Your task to perform on an android device: find snoozed emails in the gmail app Image 0: 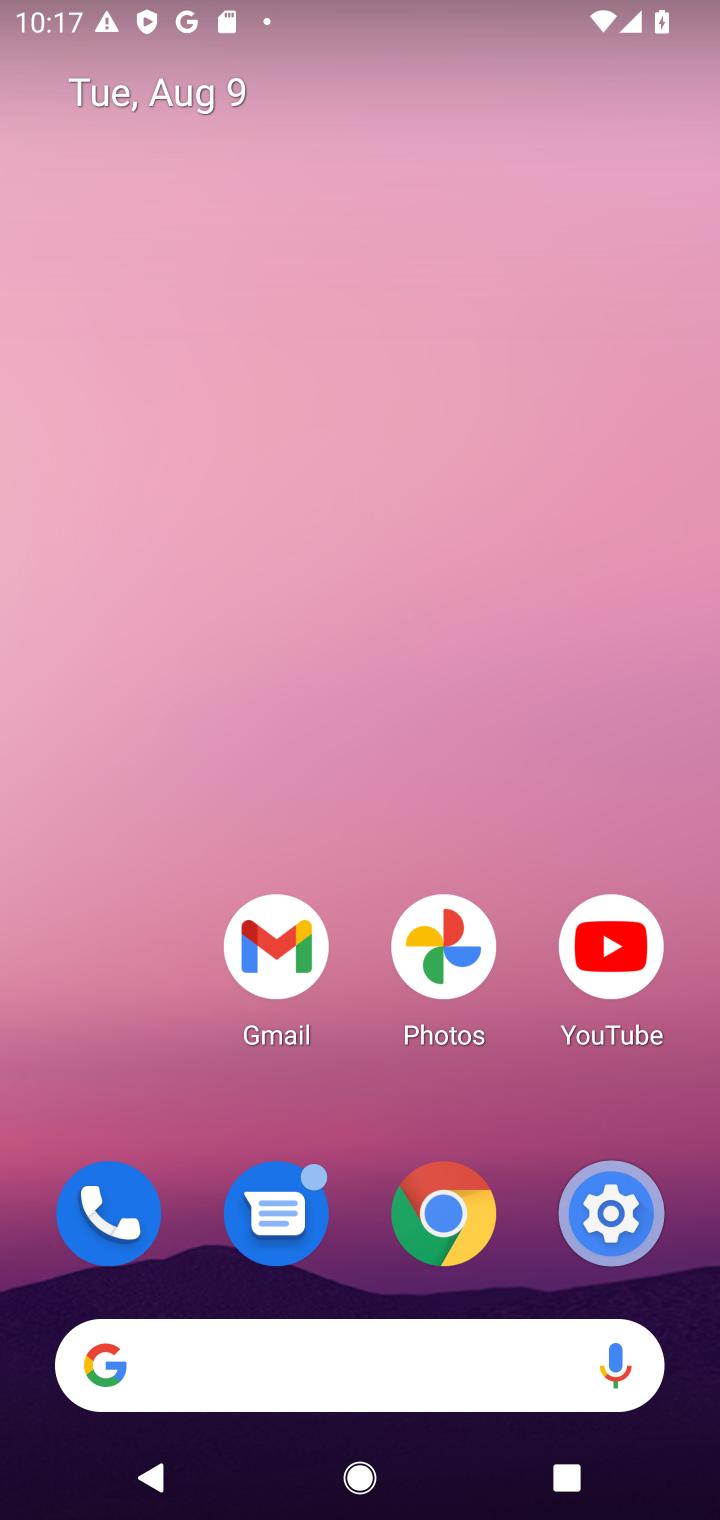
Step 0: drag from (403, 1290) to (363, 239)
Your task to perform on an android device: find snoozed emails in the gmail app Image 1: 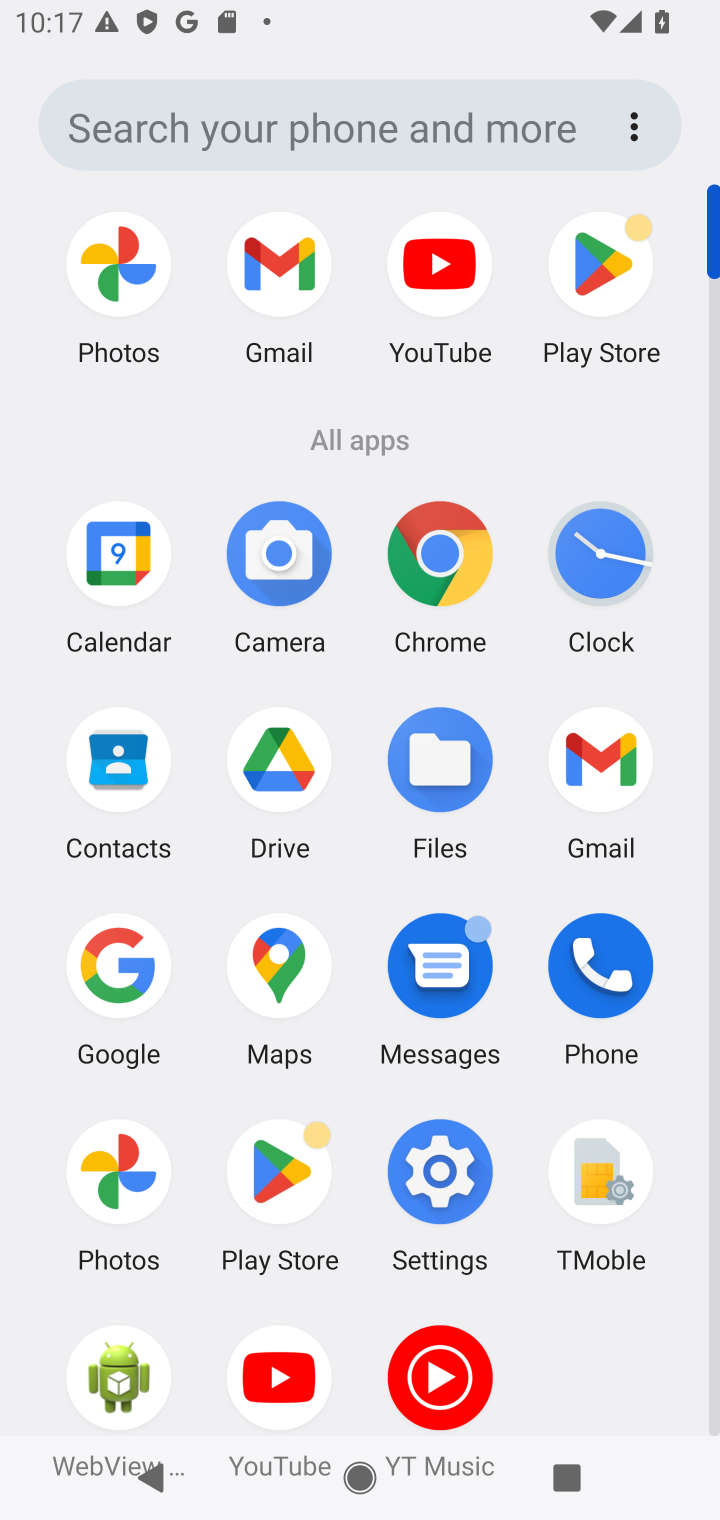
Step 1: click (559, 802)
Your task to perform on an android device: find snoozed emails in the gmail app Image 2: 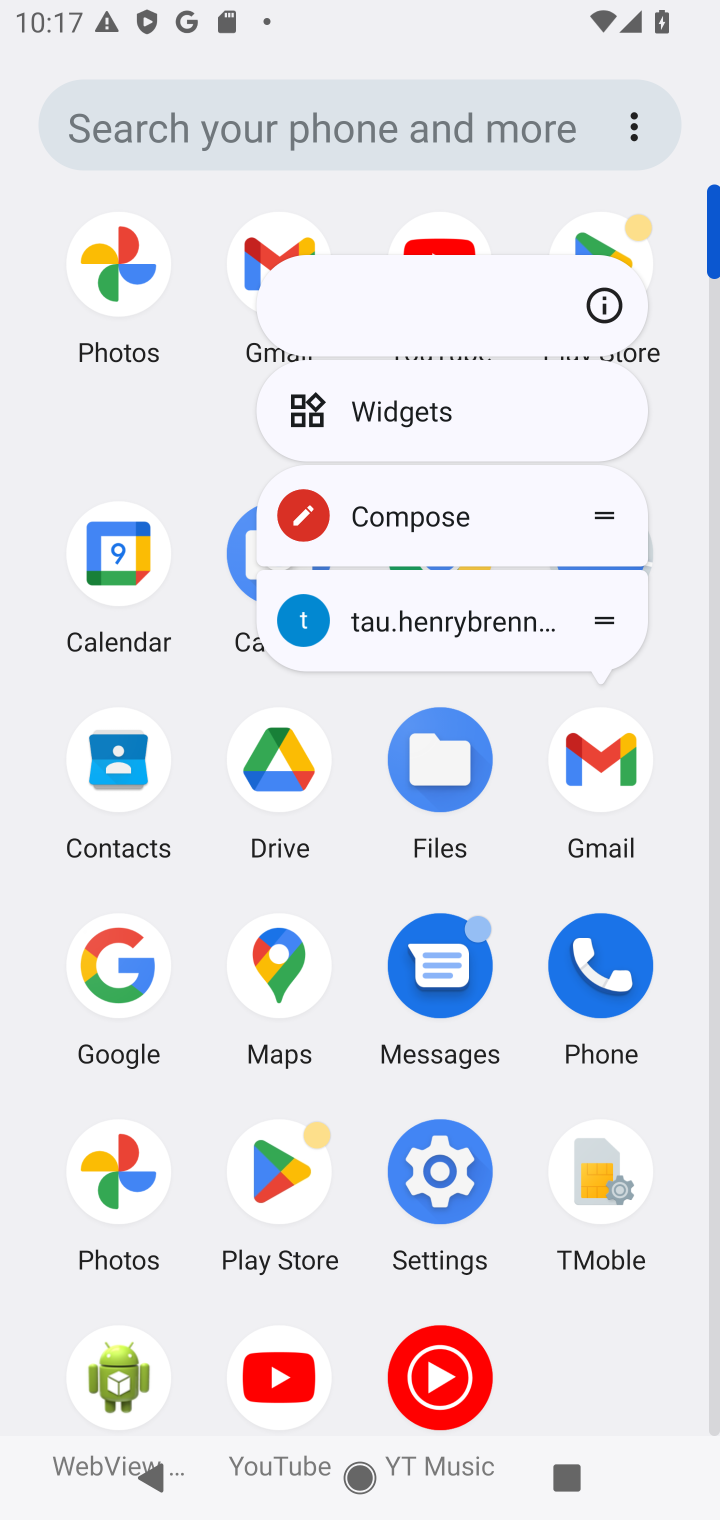
Step 2: click (580, 783)
Your task to perform on an android device: find snoozed emails in the gmail app Image 3: 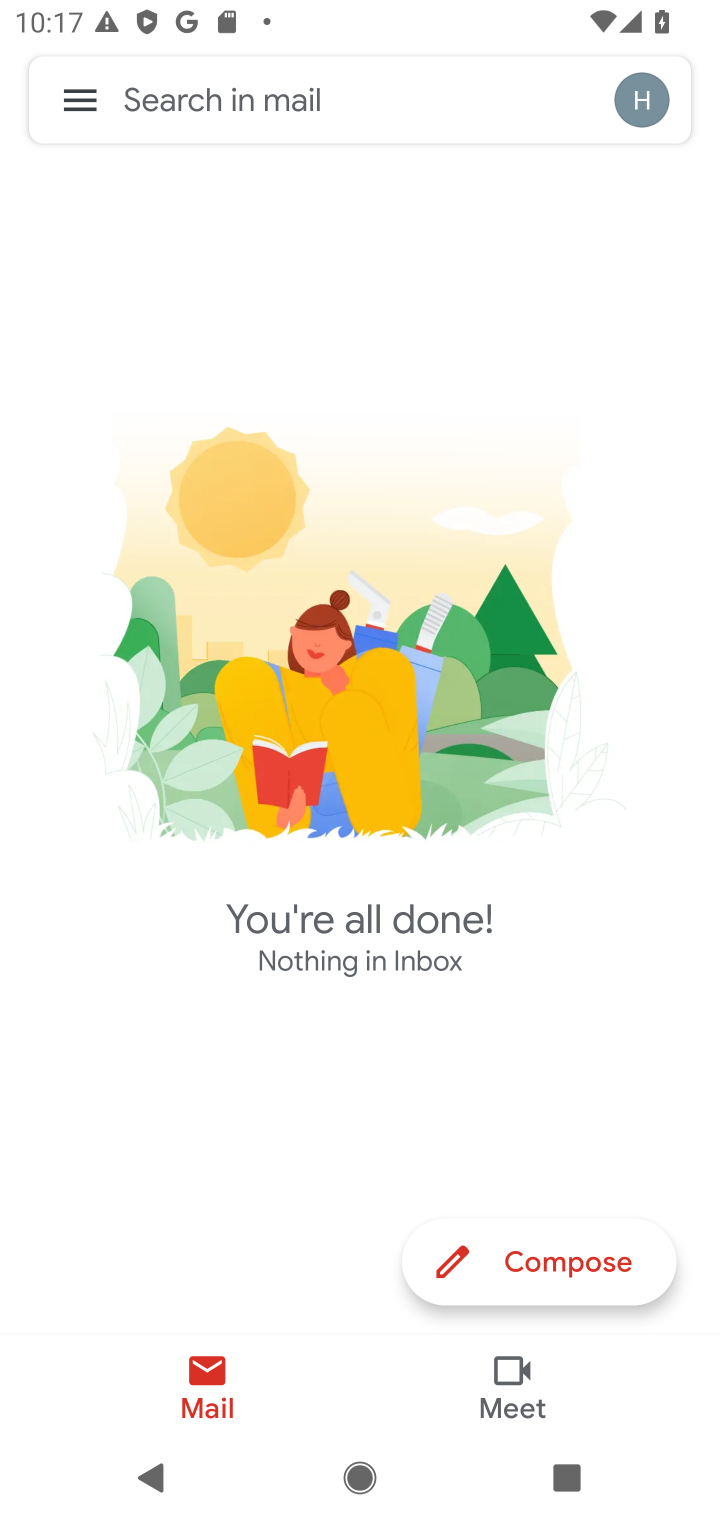
Step 3: click (80, 105)
Your task to perform on an android device: find snoozed emails in the gmail app Image 4: 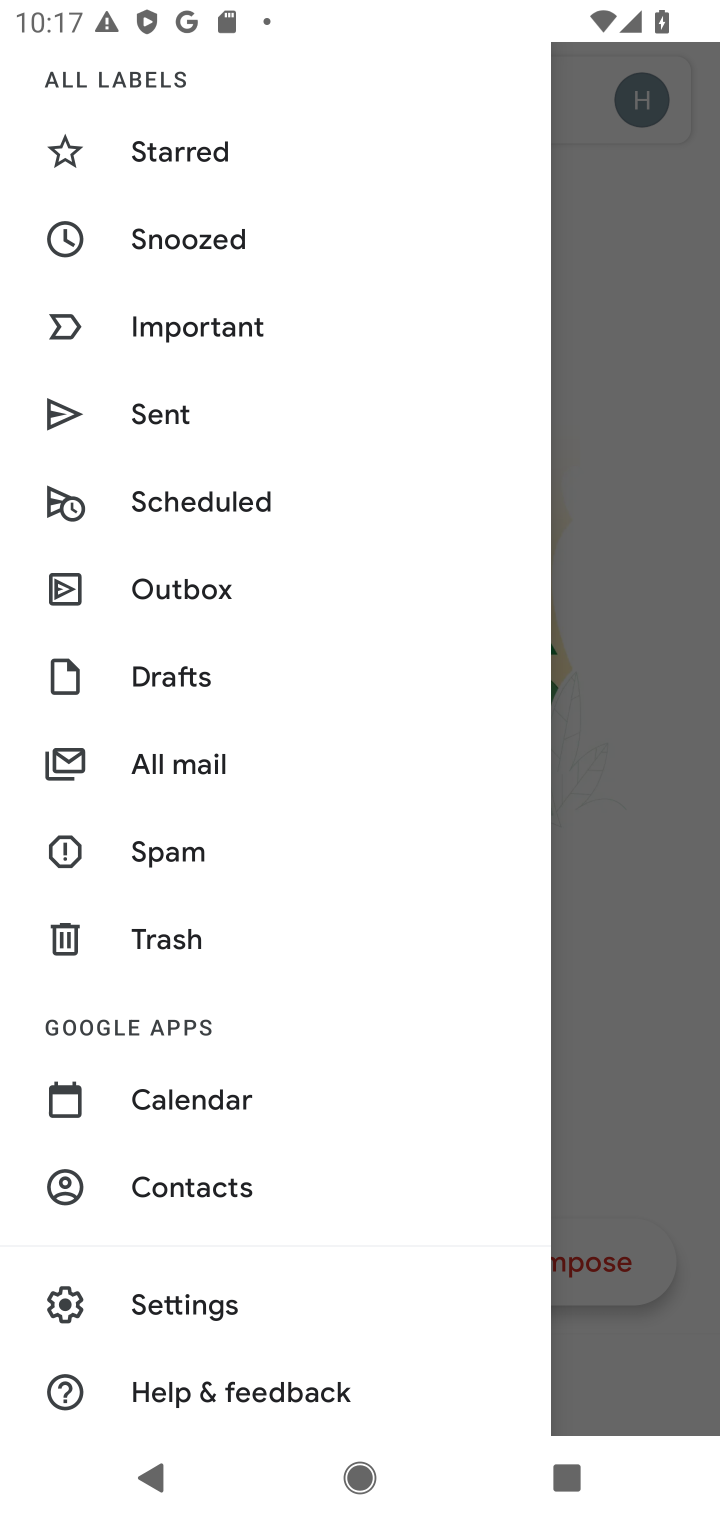
Step 4: click (226, 231)
Your task to perform on an android device: find snoozed emails in the gmail app Image 5: 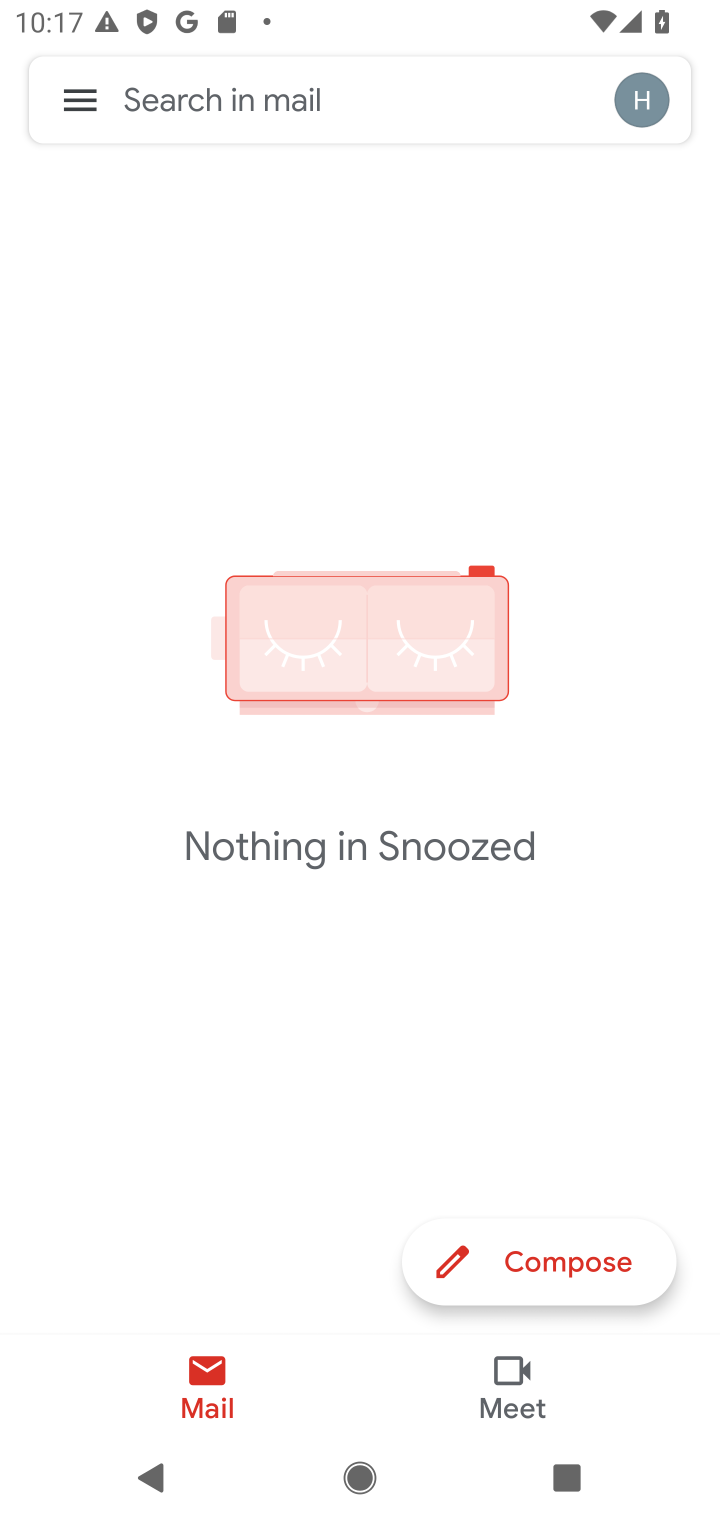
Step 5: task complete